Your task to perform on an android device: uninstall "Spotify: Music and Podcasts" Image 0: 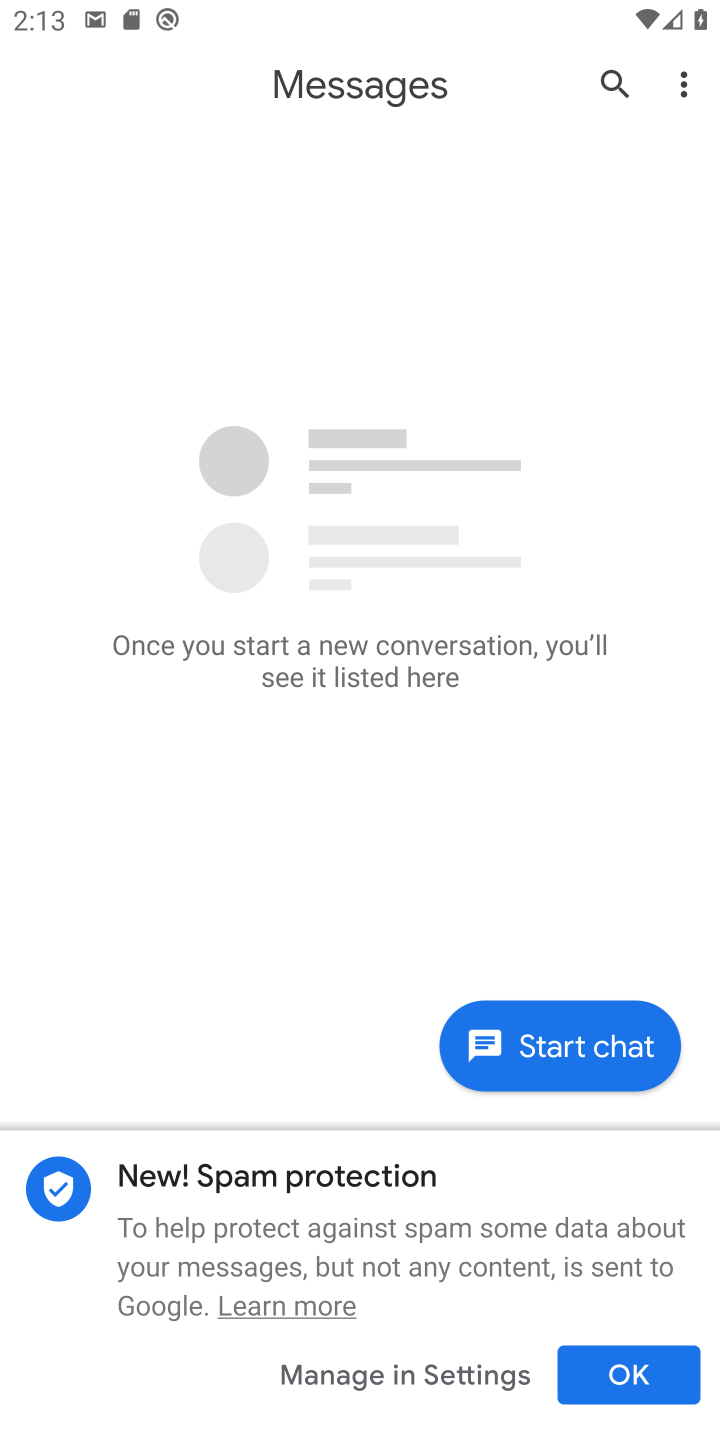
Step 0: press back button
Your task to perform on an android device: uninstall "Spotify: Music and Podcasts" Image 1: 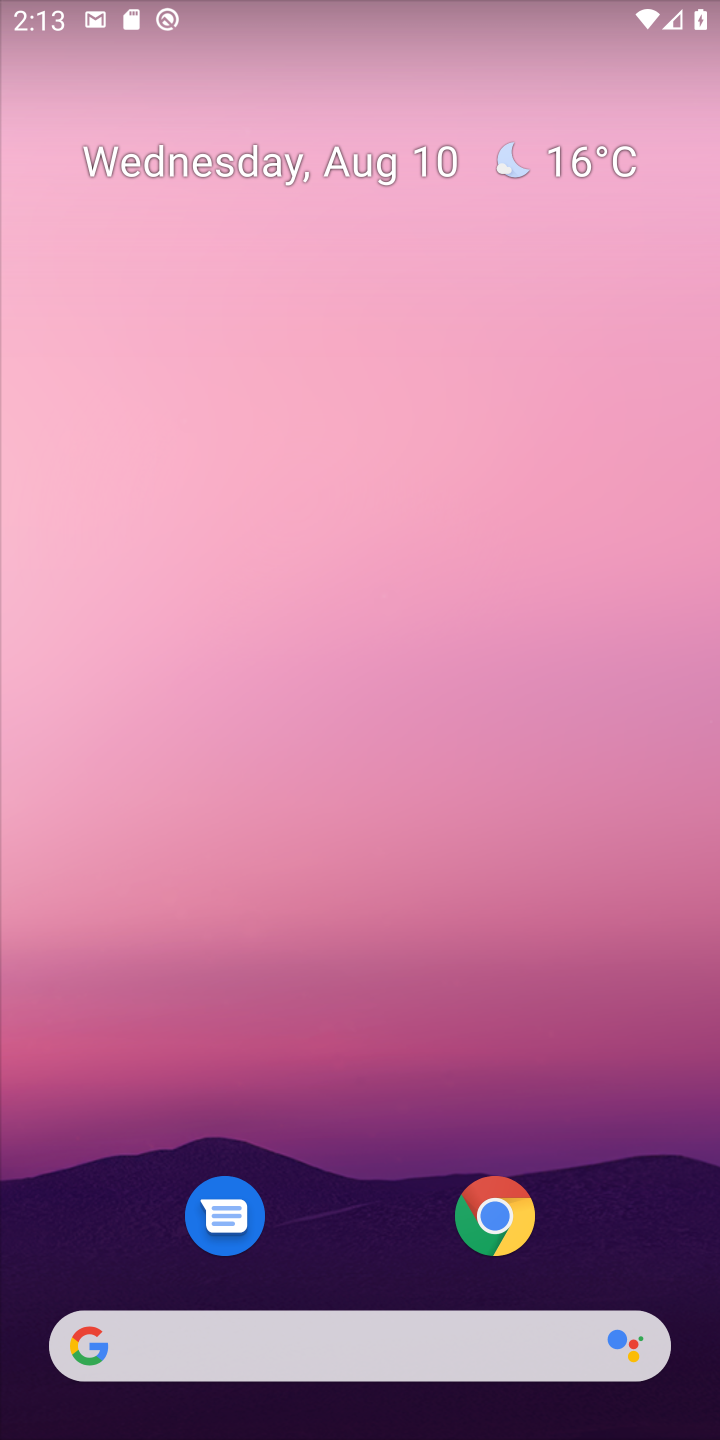
Step 1: drag from (434, 1284) to (295, 181)
Your task to perform on an android device: uninstall "Spotify: Music and Podcasts" Image 2: 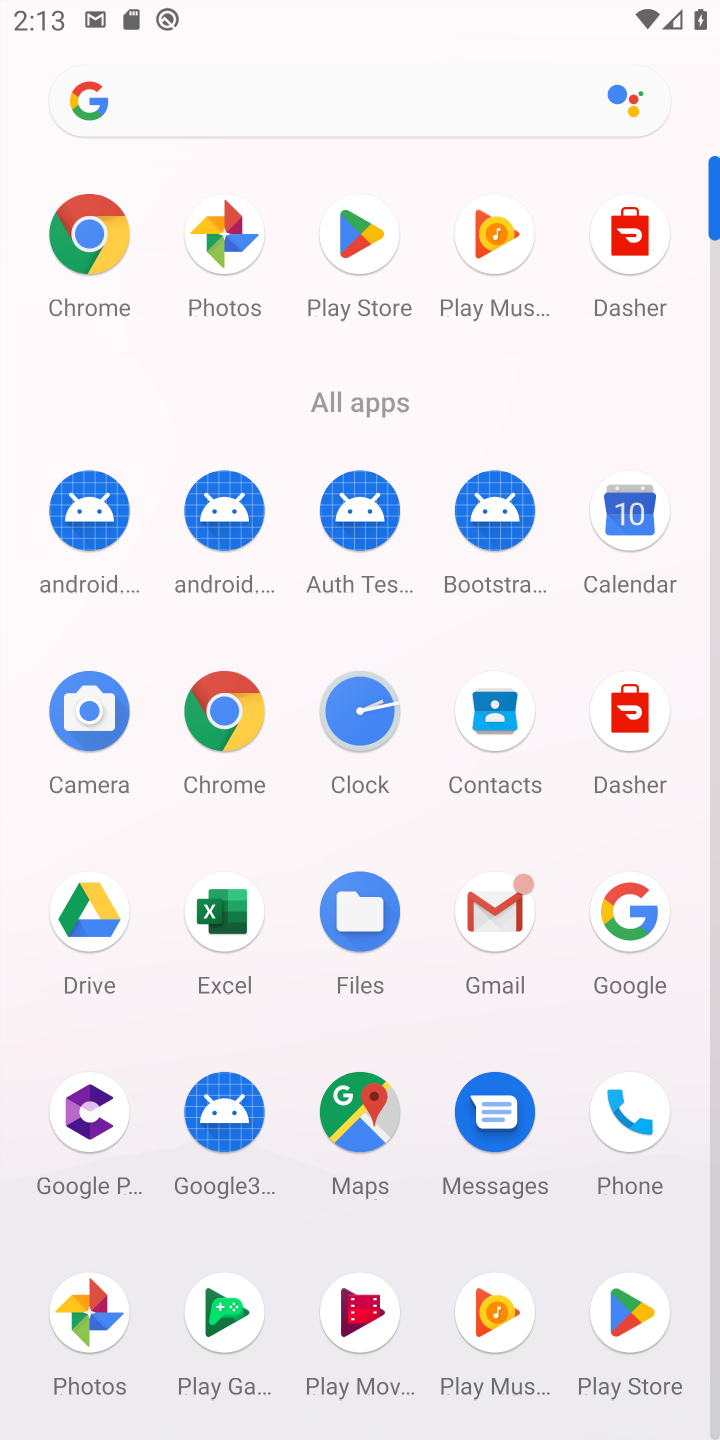
Step 2: click (616, 1308)
Your task to perform on an android device: uninstall "Spotify: Music and Podcasts" Image 3: 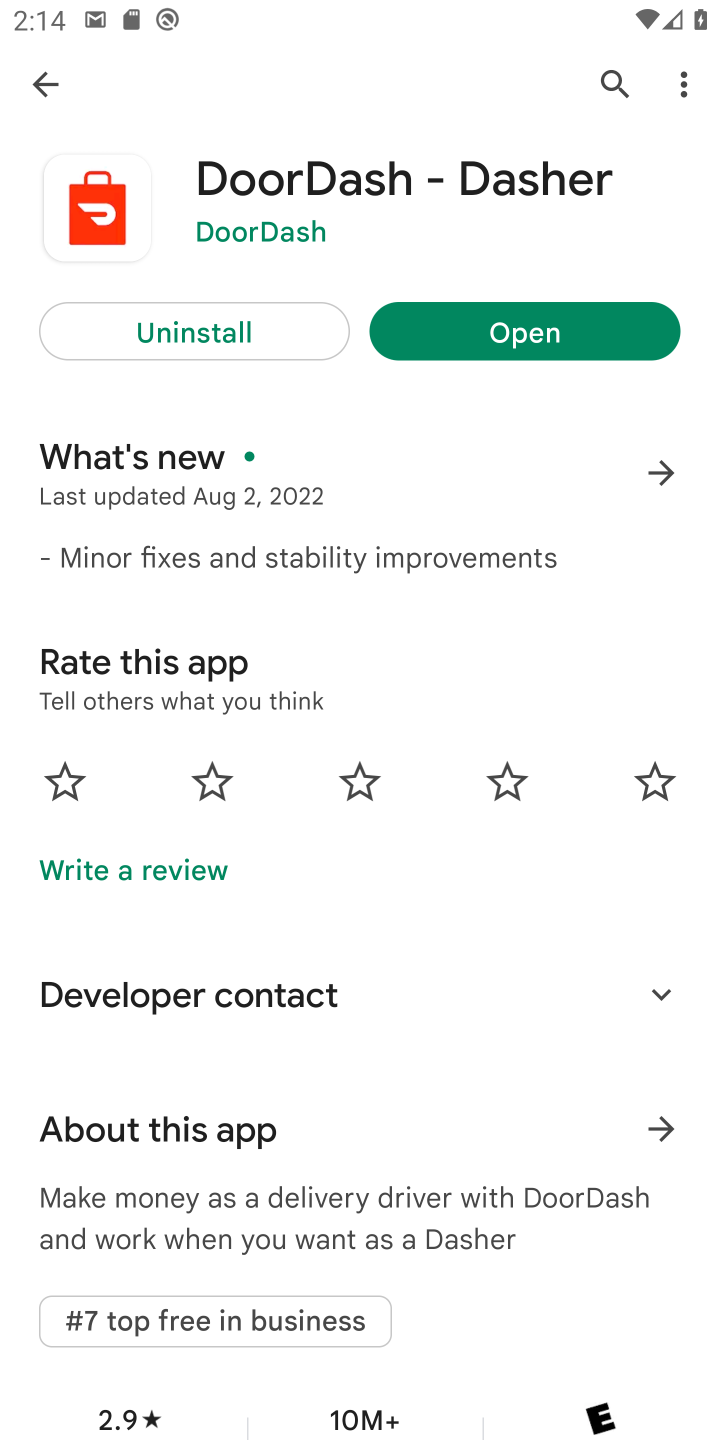
Step 3: click (26, 87)
Your task to perform on an android device: uninstall "Spotify: Music and Podcasts" Image 4: 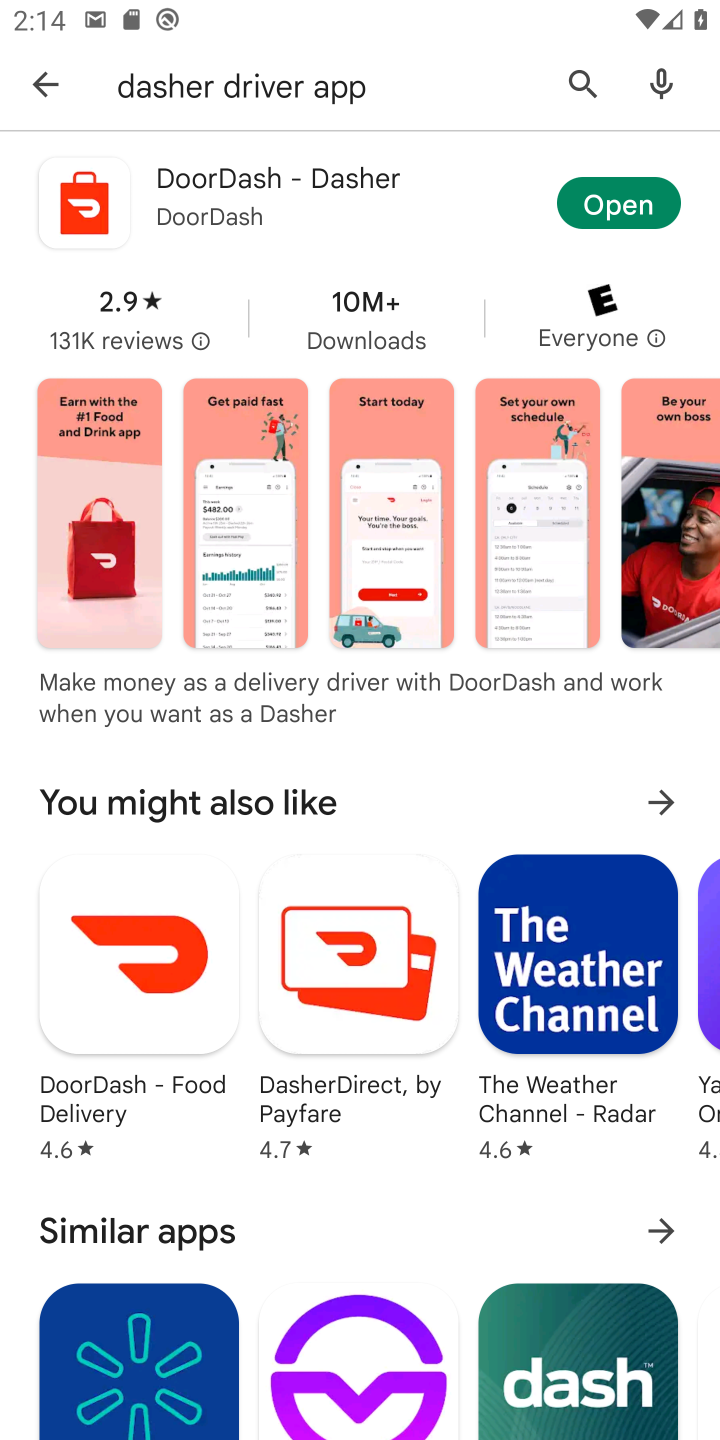
Step 4: click (52, 71)
Your task to perform on an android device: uninstall "Spotify: Music and Podcasts" Image 5: 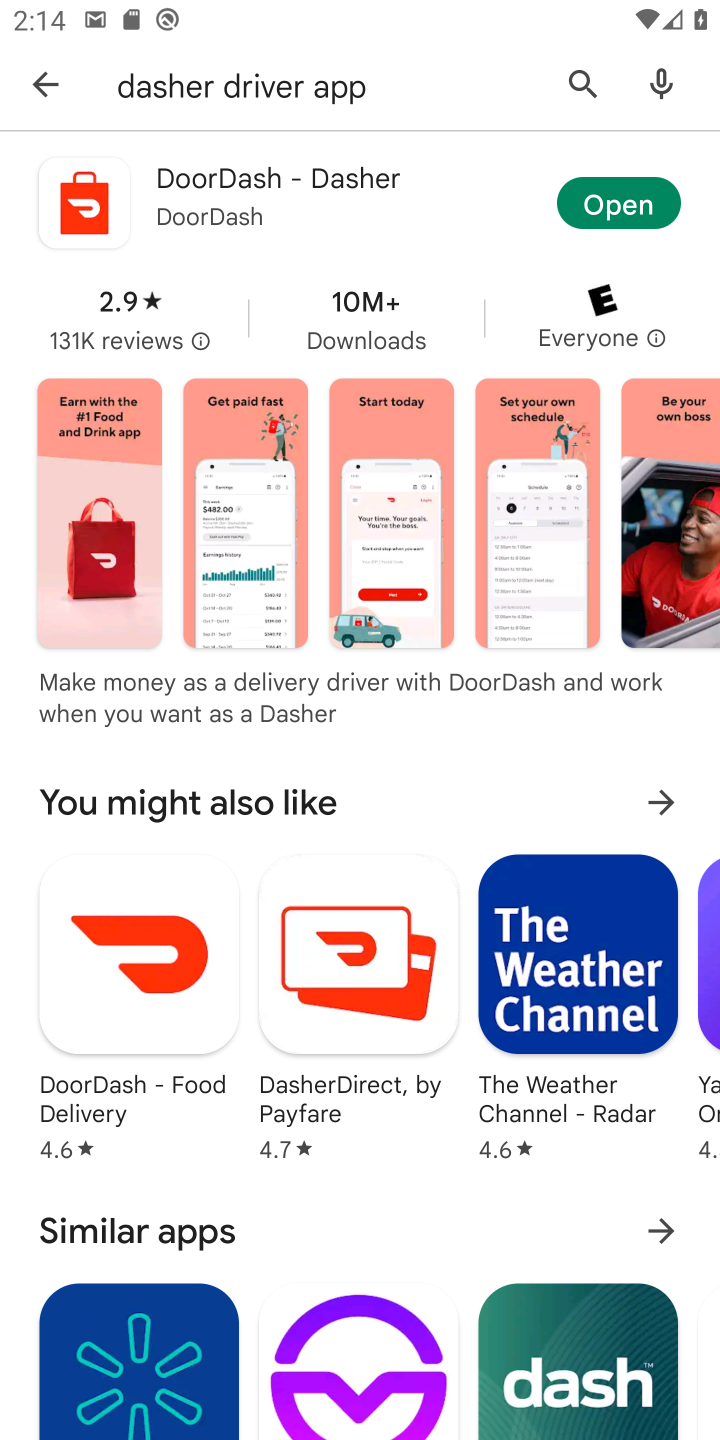
Step 5: click (21, 98)
Your task to perform on an android device: uninstall "Spotify: Music and Podcasts" Image 6: 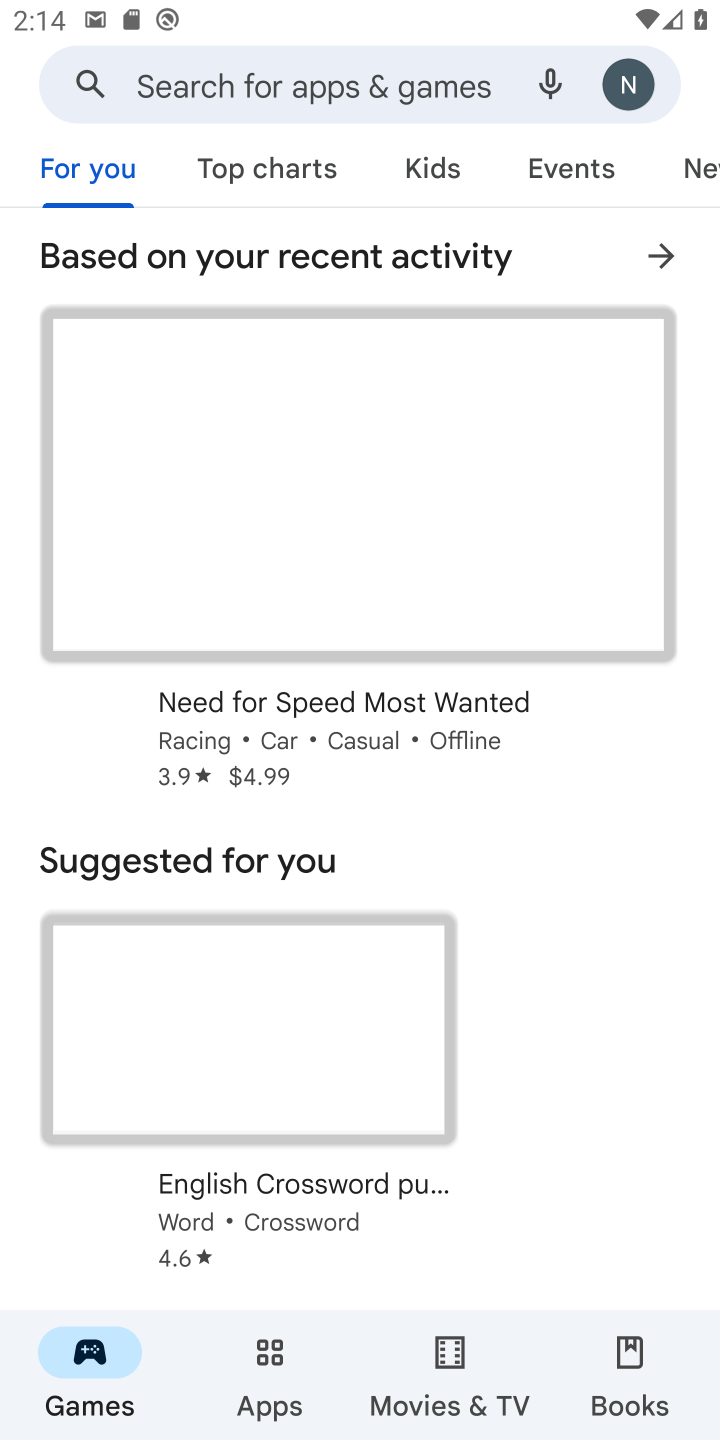
Step 6: click (153, 84)
Your task to perform on an android device: uninstall "Spotify: Music and Podcasts" Image 7: 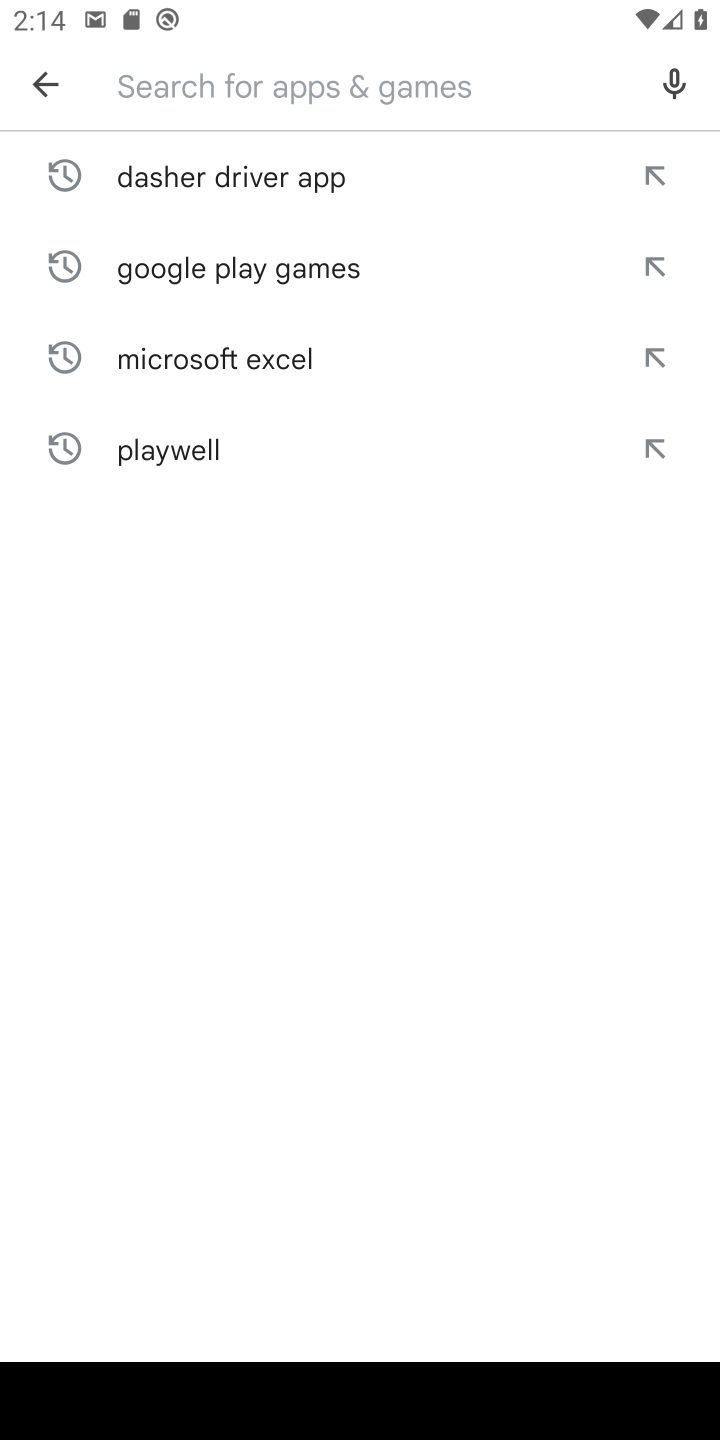
Step 7: type "Spotify"
Your task to perform on an android device: uninstall "Spotify: Music and Podcasts" Image 8: 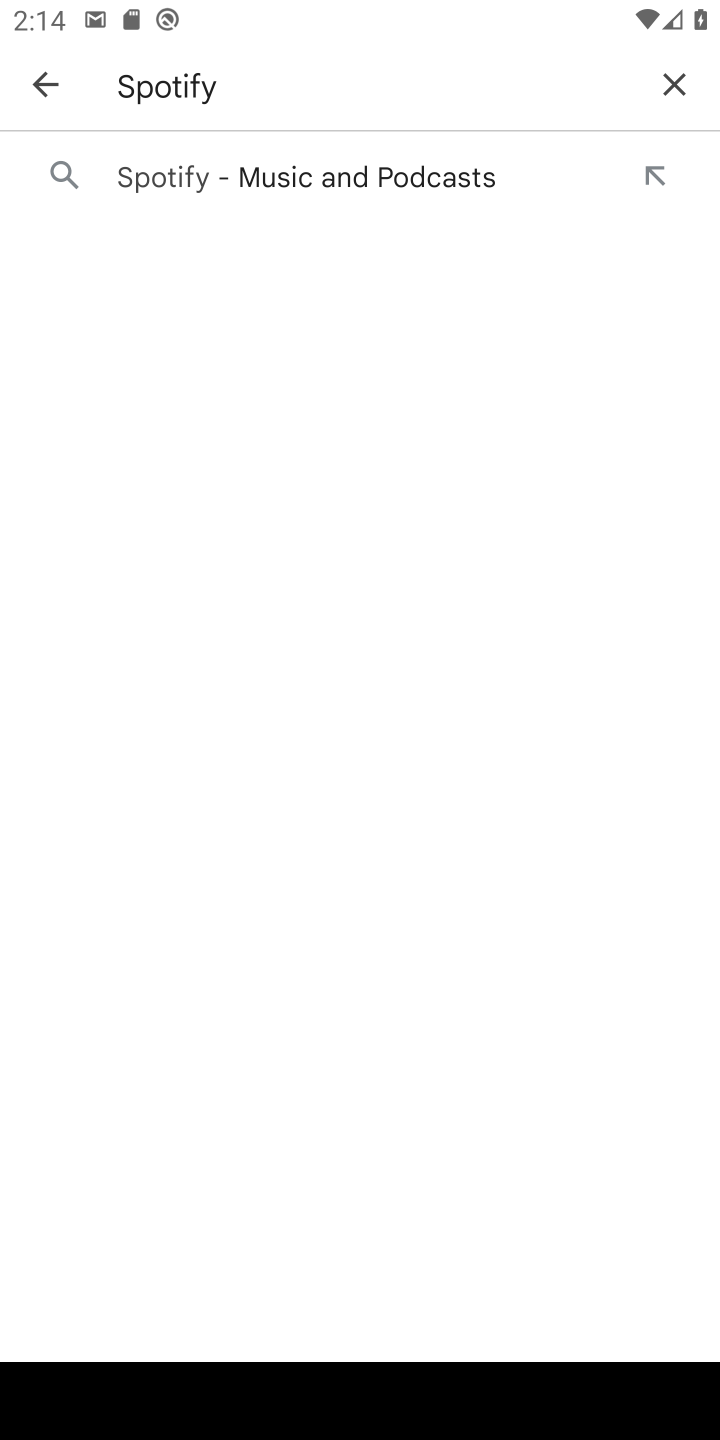
Step 8: click (310, 202)
Your task to perform on an android device: uninstall "Spotify: Music and Podcasts" Image 9: 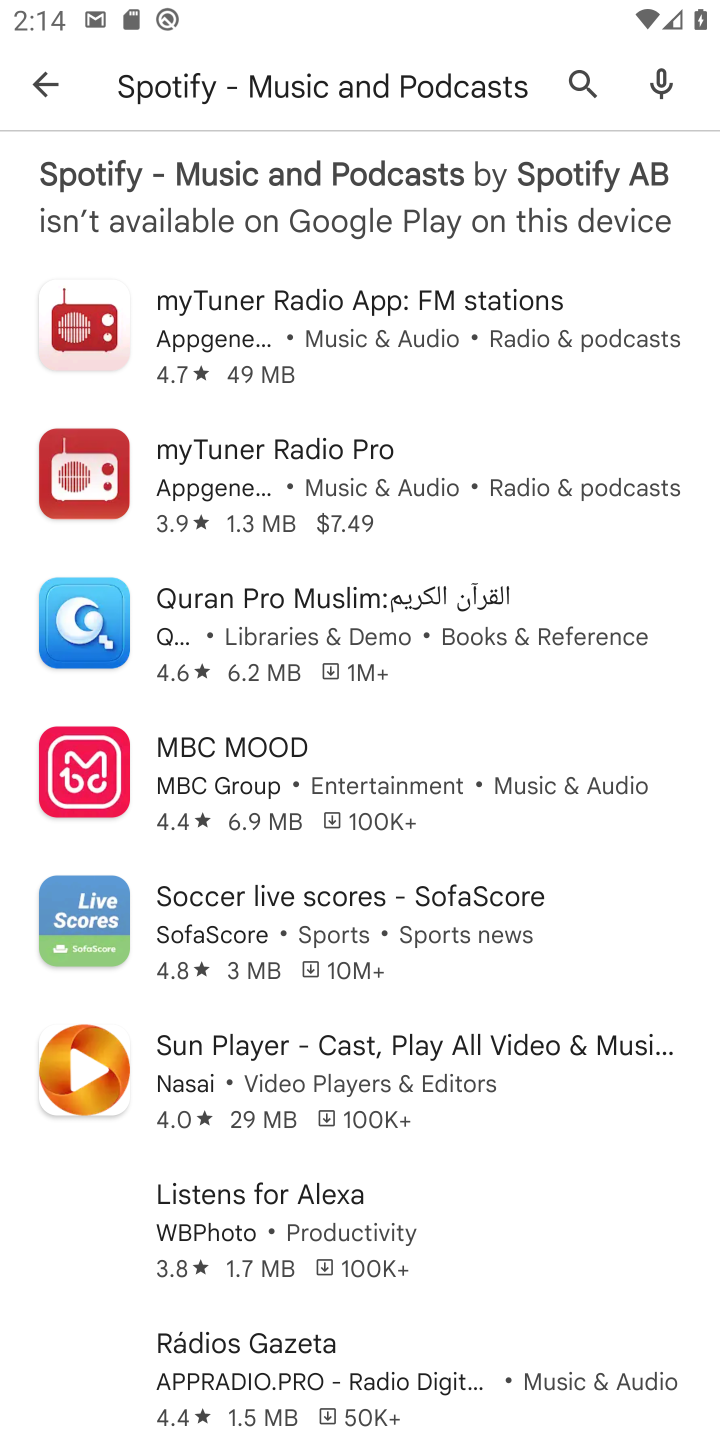
Step 9: task complete